Your task to perform on an android device: What's the latest video from GameSpot? Image 0: 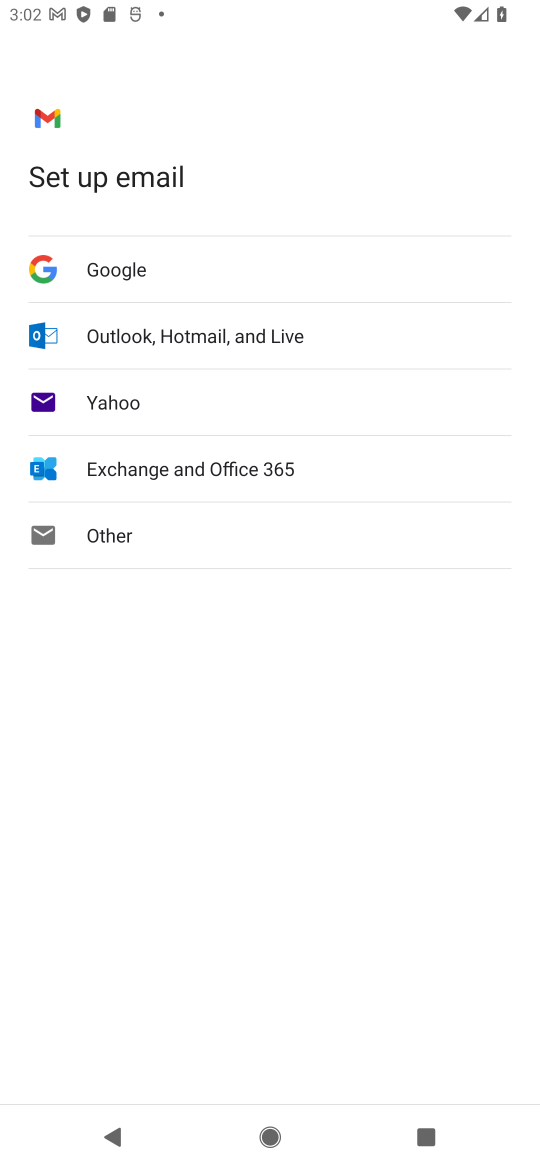
Step 0: press home button
Your task to perform on an android device: What's the latest video from GameSpot? Image 1: 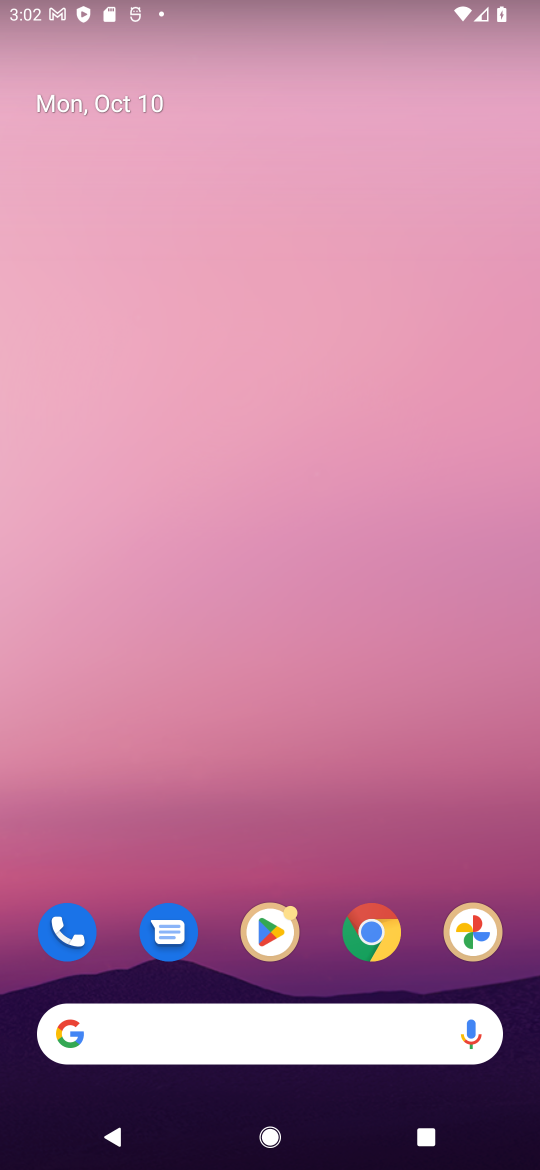
Step 1: drag from (481, 841) to (452, 26)
Your task to perform on an android device: What's the latest video from GameSpot? Image 2: 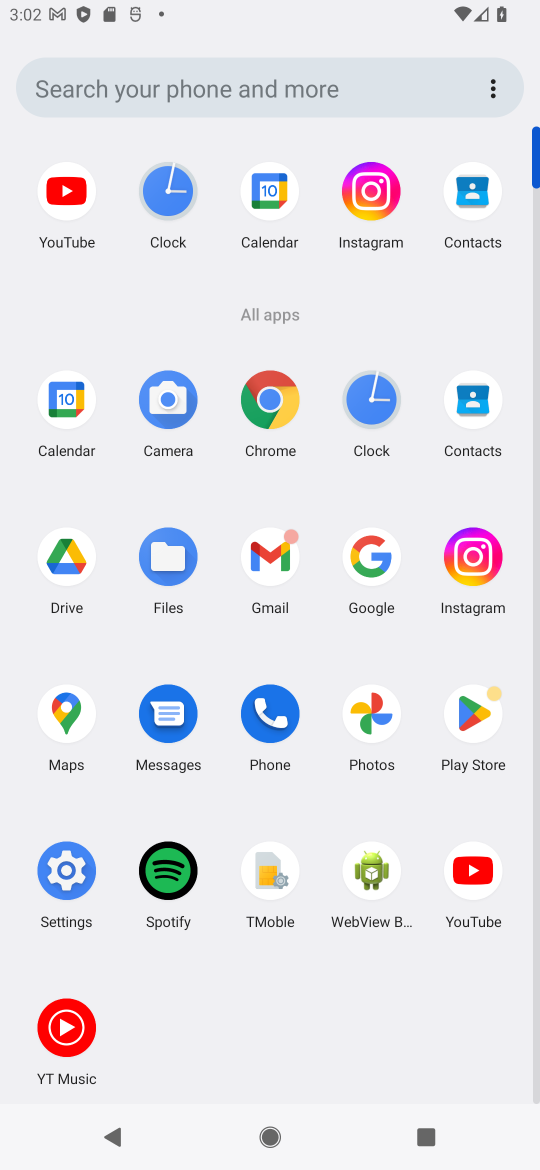
Step 2: click (68, 200)
Your task to perform on an android device: What's the latest video from GameSpot? Image 3: 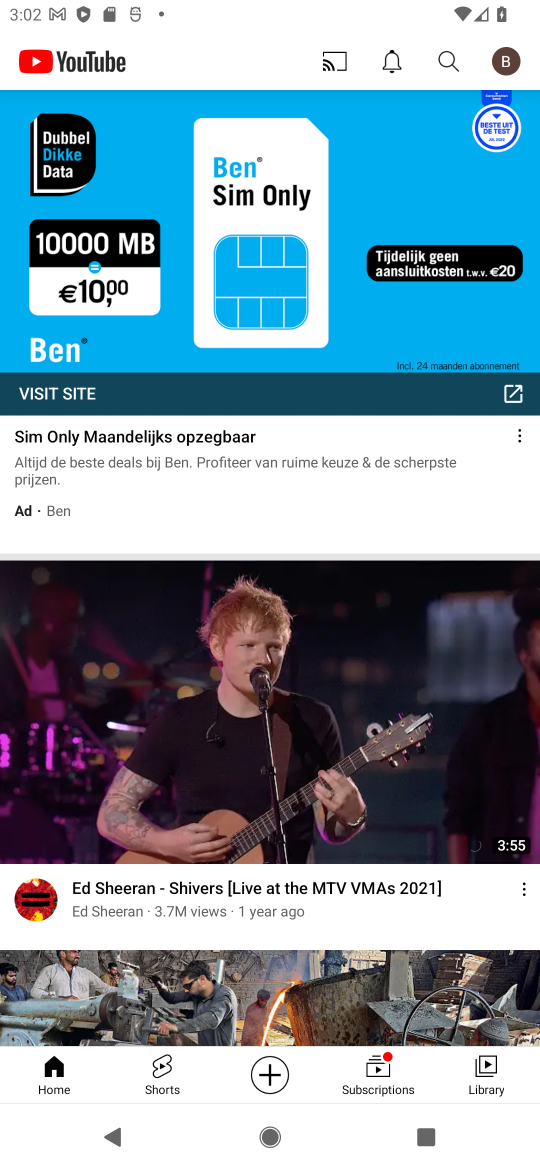
Step 3: click (436, 52)
Your task to perform on an android device: What's the latest video from GameSpot? Image 4: 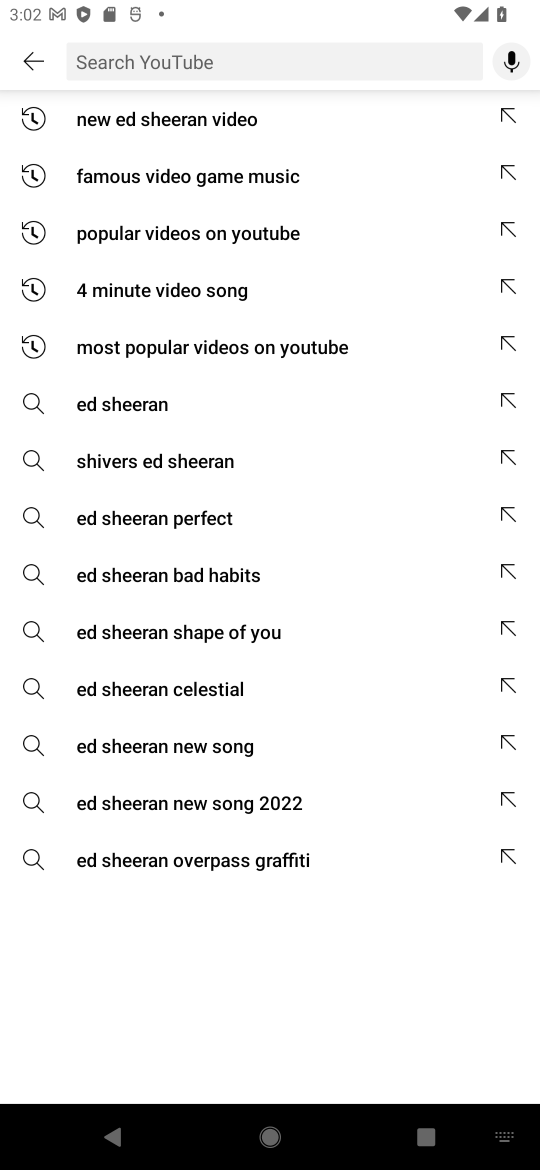
Step 4: press enter
Your task to perform on an android device: What's the latest video from GameSpot? Image 5: 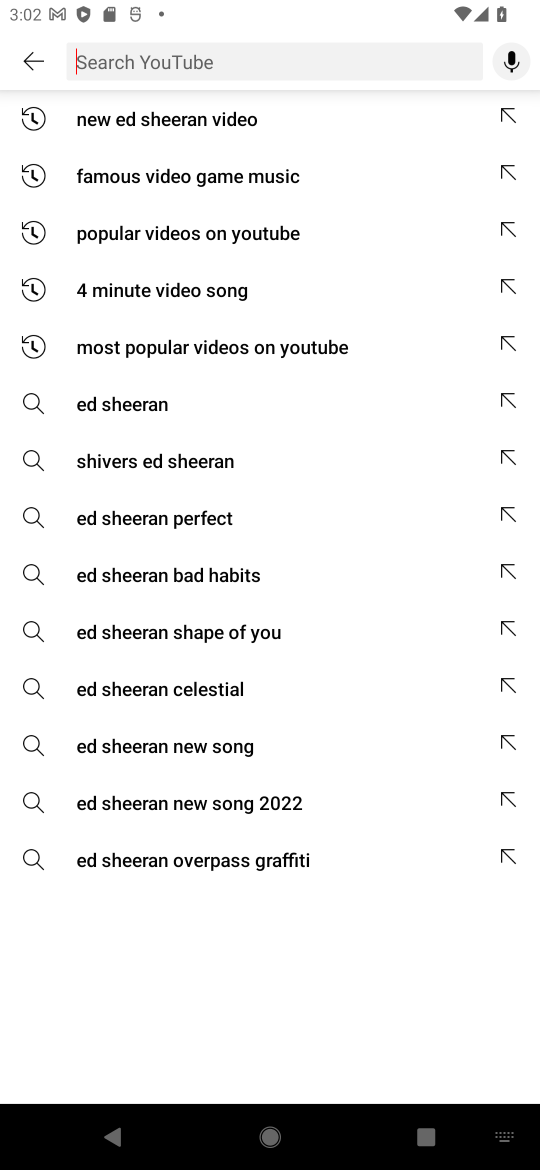
Step 5: type "latest video from GameSpot"
Your task to perform on an android device: What's the latest video from GameSpot? Image 6: 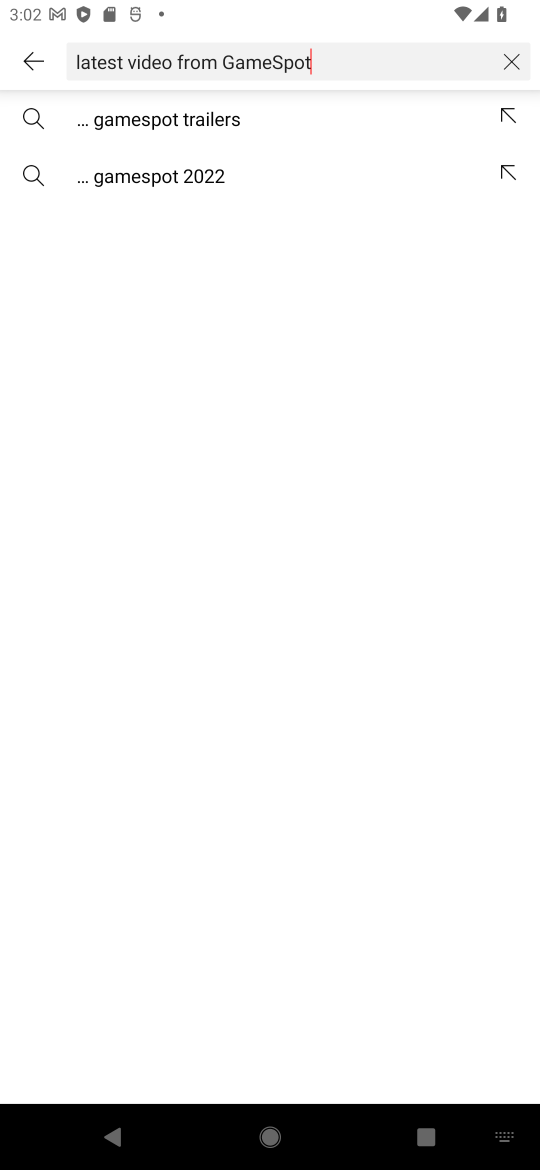
Step 6: press enter
Your task to perform on an android device: What's the latest video from GameSpot? Image 7: 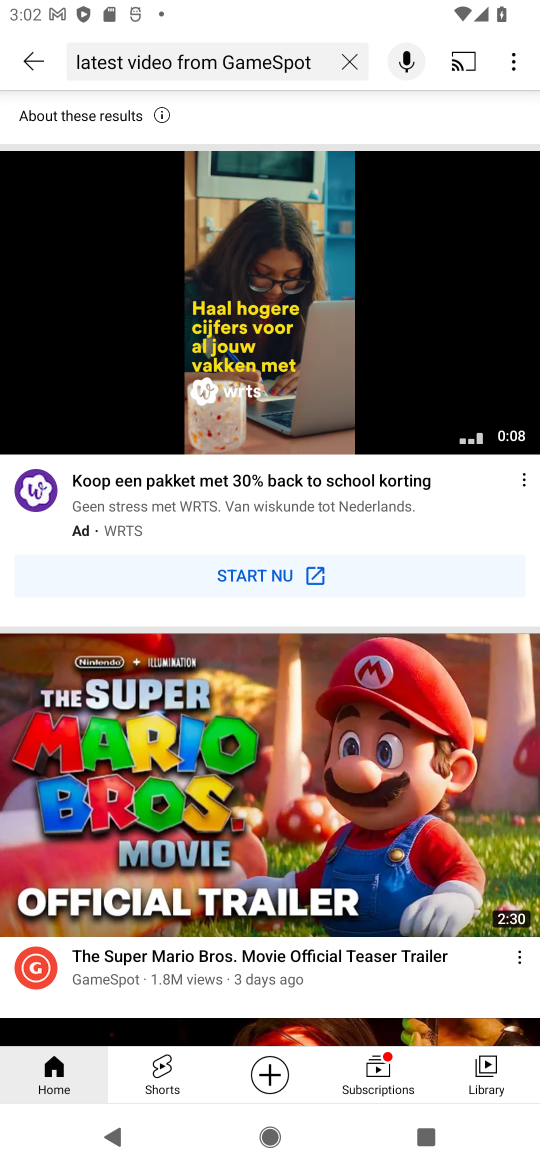
Step 7: task complete